Your task to perform on an android device: stop showing notifications on the lock screen Image 0: 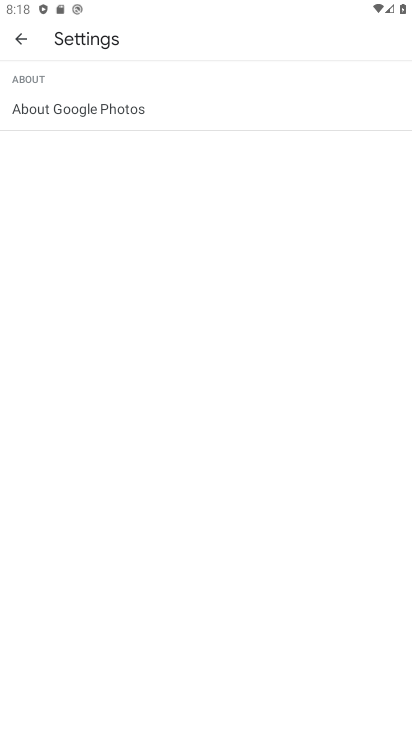
Step 0: press home button
Your task to perform on an android device: stop showing notifications on the lock screen Image 1: 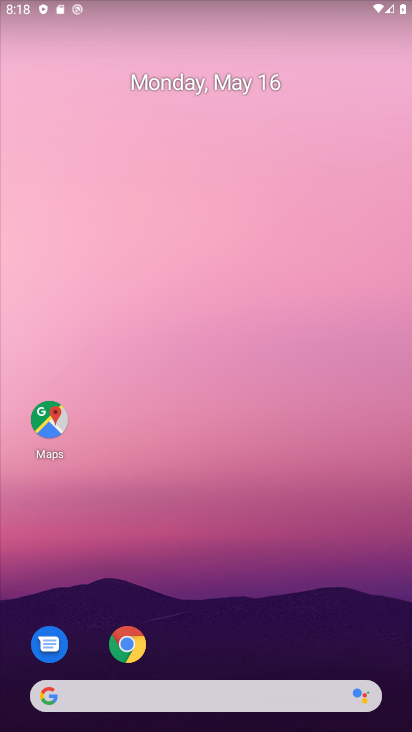
Step 1: drag from (248, 628) to (284, 156)
Your task to perform on an android device: stop showing notifications on the lock screen Image 2: 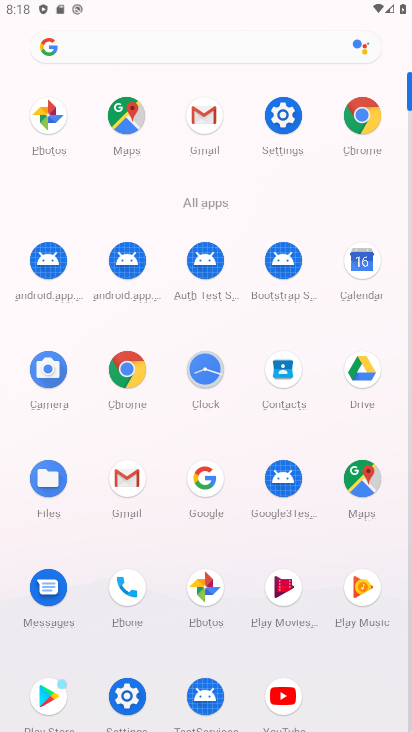
Step 2: click (292, 110)
Your task to perform on an android device: stop showing notifications on the lock screen Image 3: 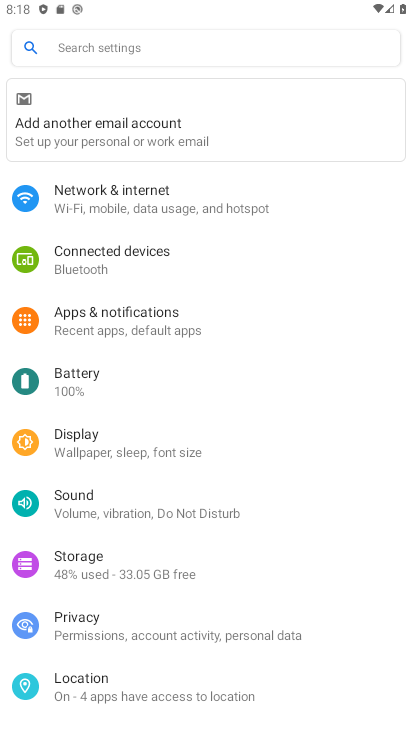
Step 3: click (139, 320)
Your task to perform on an android device: stop showing notifications on the lock screen Image 4: 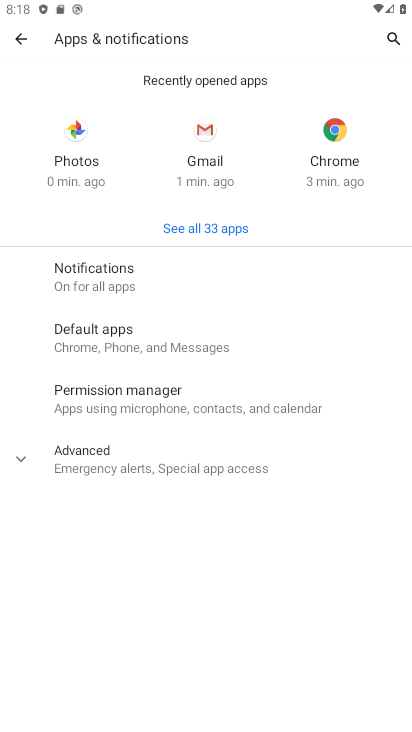
Step 4: click (101, 286)
Your task to perform on an android device: stop showing notifications on the lock screen Image 5: 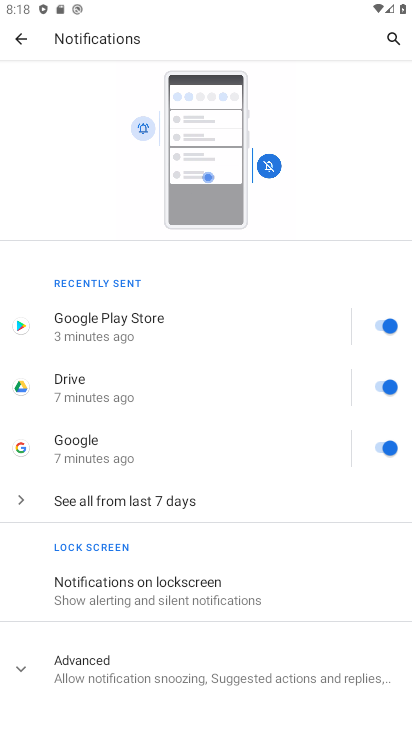
Step 5: drag from (128, 655) to (169, 323)
Your task to perform on an android device: stop showing notifications on the lock screen Image 6: 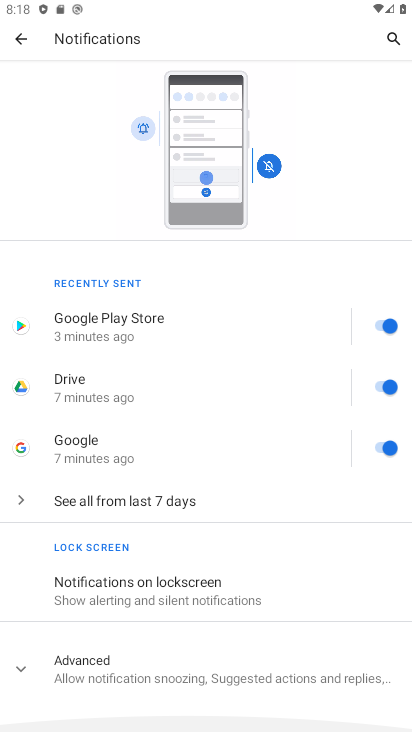
Step 6: click (158, 591)
Your task to perform on an android device: stop showing notifications on the lock screen Image 7: 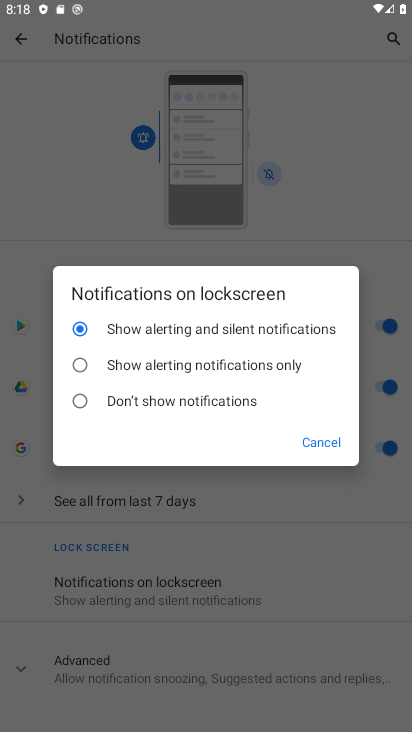
Step 7: click (80, 390)
Your task to perform on an android device: stop showing notifications on the lock screen Image 8: 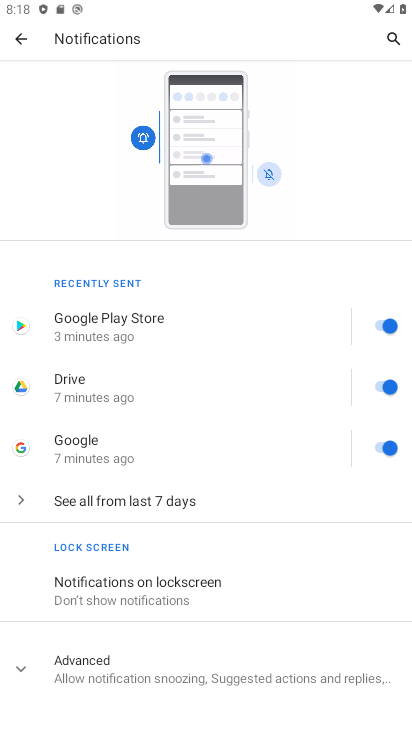
Step 8: task complete